Your task to perform on an android device: find photos in the google photos app Image 0: 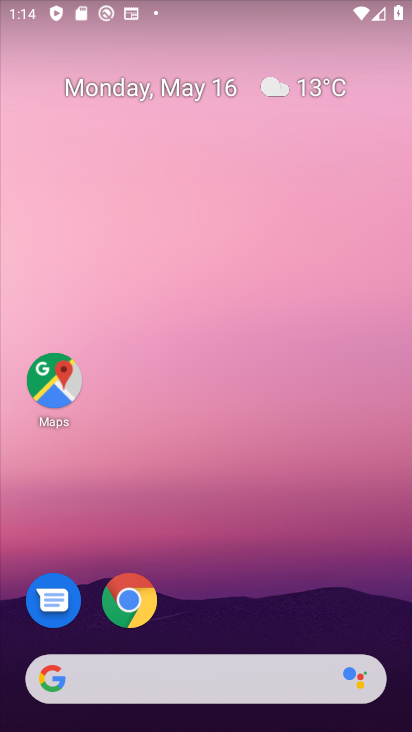
Step 0: drag from (231, 614) to (44, 88)
Your task to perform on an android device: find photos in the google photos app Image 1: 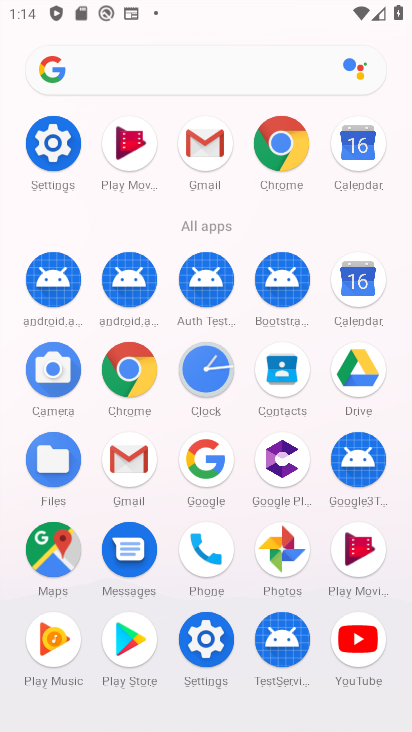
Step 1: click (281, 549)
Your task to perform on an android device: find photos in the google photos app Image 2: 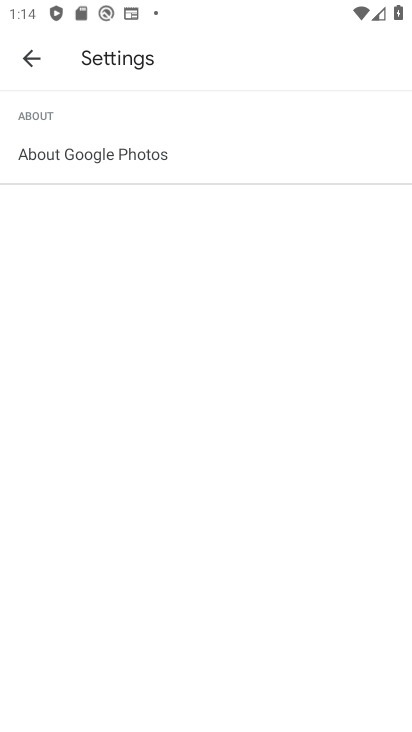
Step 2: click (26, 64)
Your task to perform on an android device: find photos in the google photos app Image 3: 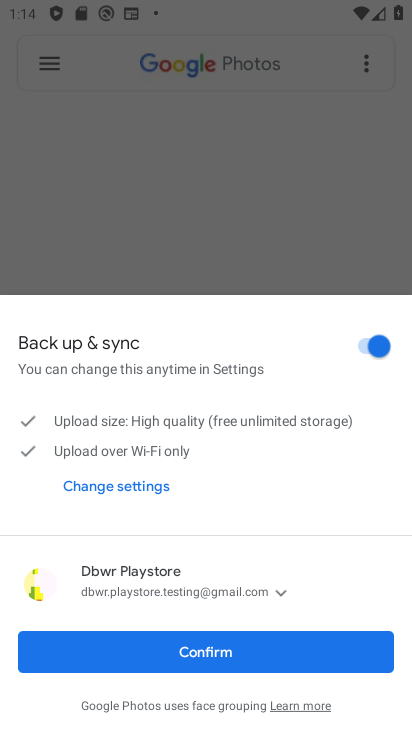
Step 3: click (206, 654)
Your task to perform on an android device: find photos in the google photos app Image 4: 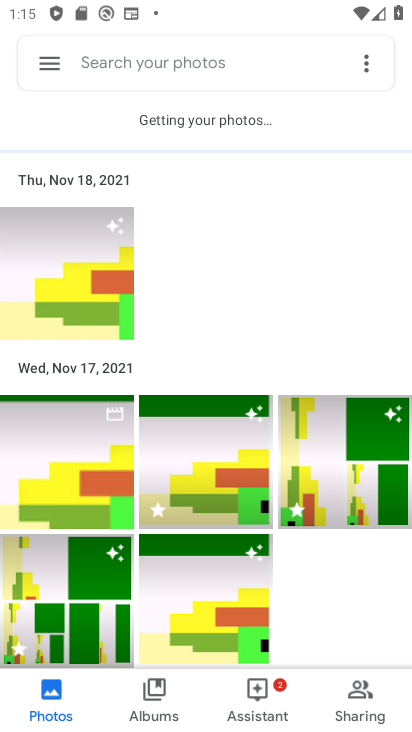
Step 4: task complete